Your task to perform on an android device: Open wifi settings Image 0: 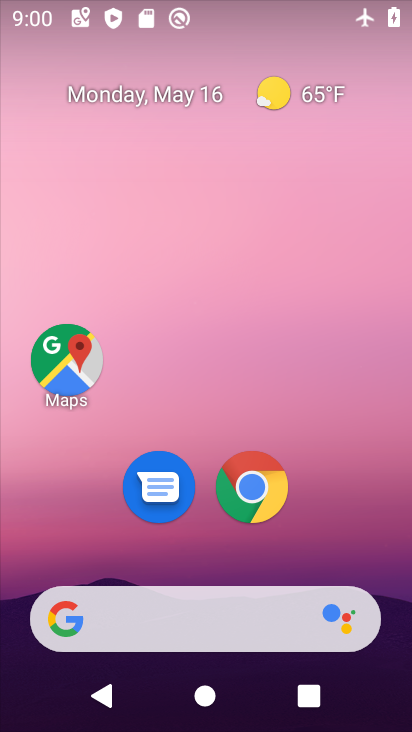
Step 0: drag from (381, 531) to (387, 164)
Your task to perform on an android device: Open wifi settings Image 1: 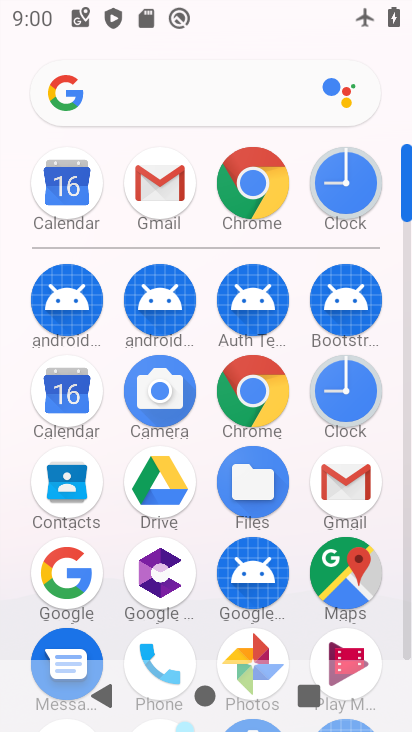
Step 1: drag from (106, 545) to (128, 321)
Your task to perform on an android device: Open wifi settings Image 2: 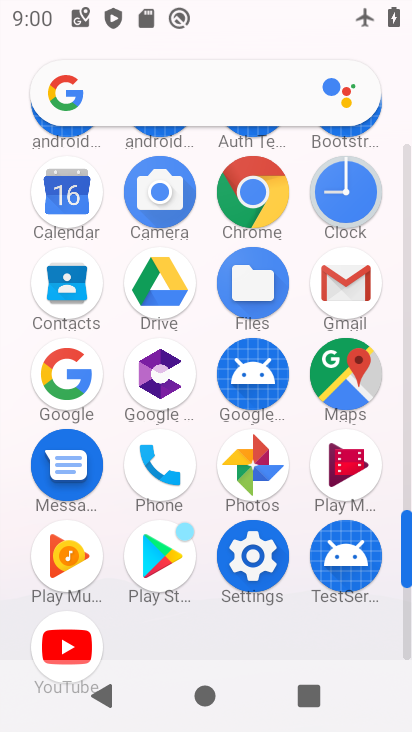
Step 2: click (247, 554)
Your task to perform on an android device: Open wifi settings Image 3: 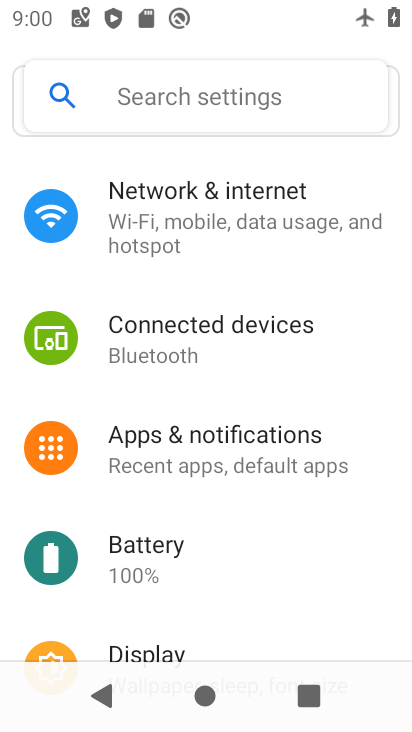
Step 3: drag from (355, 609) to (332, 319)
Your task to perform on an android device: Open wifi settings Image 4: 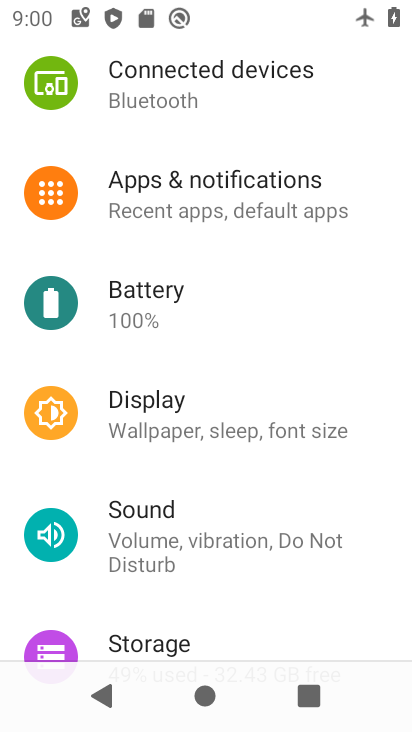
Step 4: drag from (338, 602) to (346, 373)
Your task to perform on an android device: Open wifi settings Image 5: 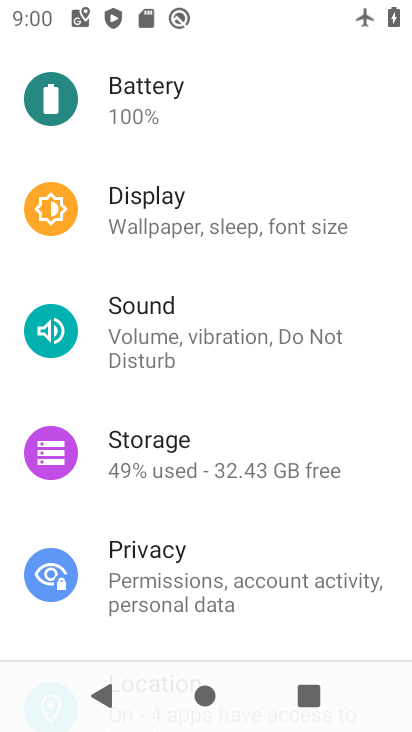
Step 5: drag from (329, 559) to (333, 326)
Your task to perform on an android device: Open wifi settings Image 6: 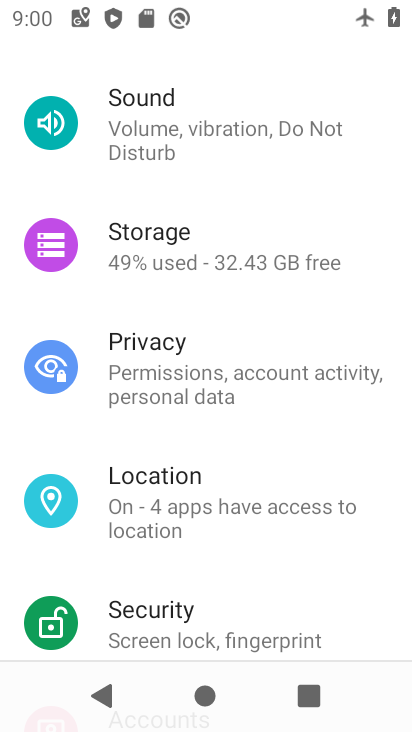
Step 6: drag from (327, 600) to (341, 398)
Your task to perform on an android device: Open wifi settings Image 7: 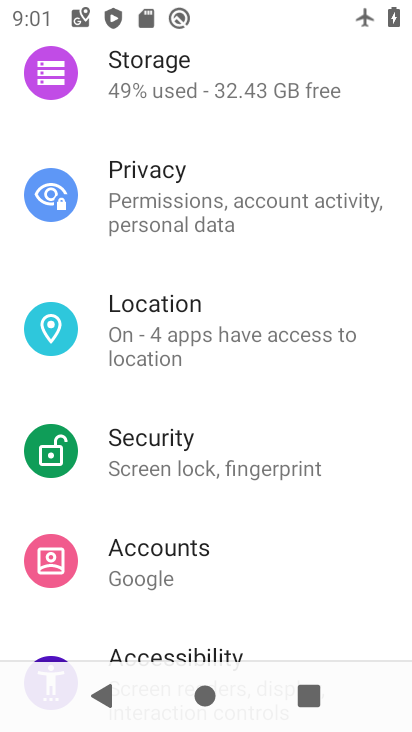
Step 7: drag from (327, 608) to (340, 404)
Your task to perform on an android device: Open wifi settings Image 8: 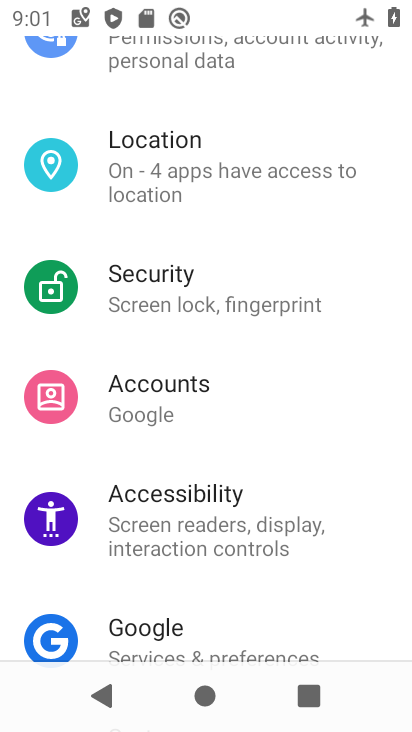
Step 8: drag from (343, 612) to (361, 399)
Your task to perform on an android device: Open wifi settings Image 9: 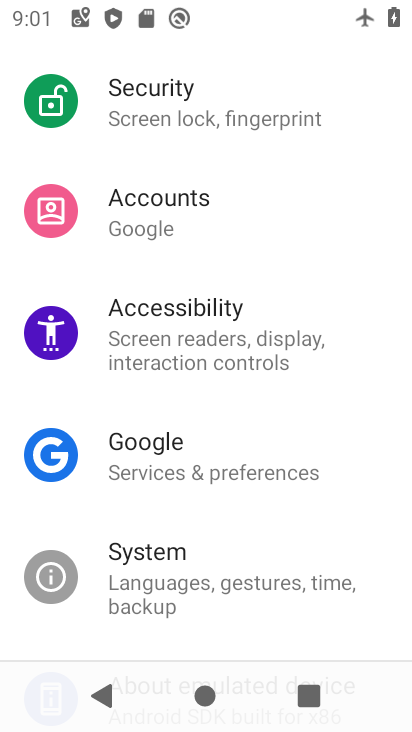
Step 9: drag from (361, 627) to (358, 452)
Your task to perform on an android device: Open wifi settings Image 10: 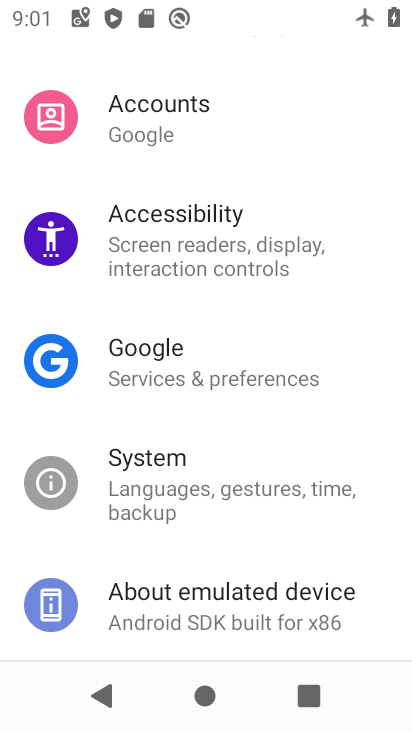
Step 10: drag from (355, 615) to (368, 365)
Your task to perform on an android device: Open wifi settings Image 11: 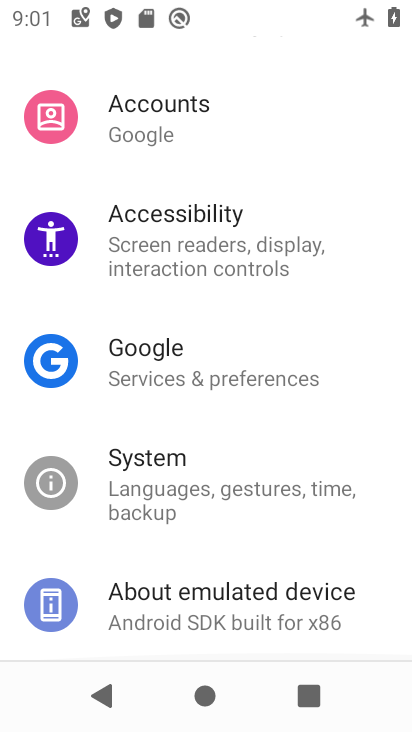
Step 11: drag from (375, 184) to (340, 472)
Your task to perform on an android device: Open wifi settings Image 12: 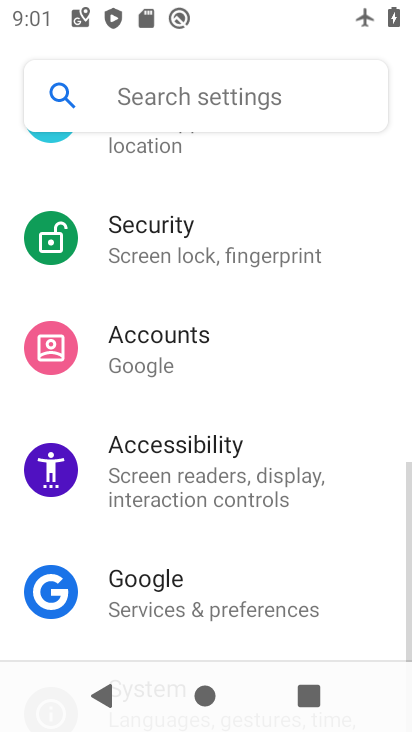
Step 12: drag from (338, 270) to (350, 511)
Your task to perform on an android device: Open wifi settings Image 13: 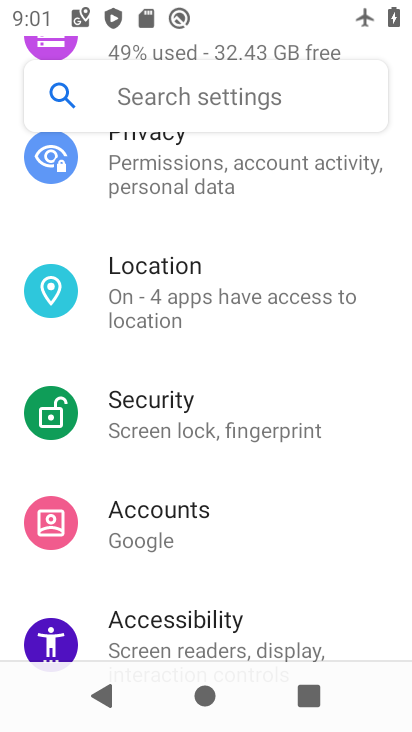
Step 13: drag from (325, 349) to (313, 587)
Your task to perform on an android device: Open wifi settings Image 14: 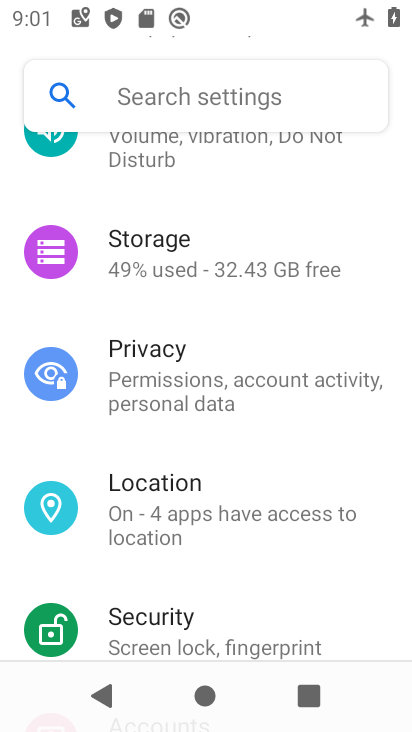
Step 14: drag from (335, 227) to (324, 388)
Your task to perform on an android device: Open wifi settings Image 15: 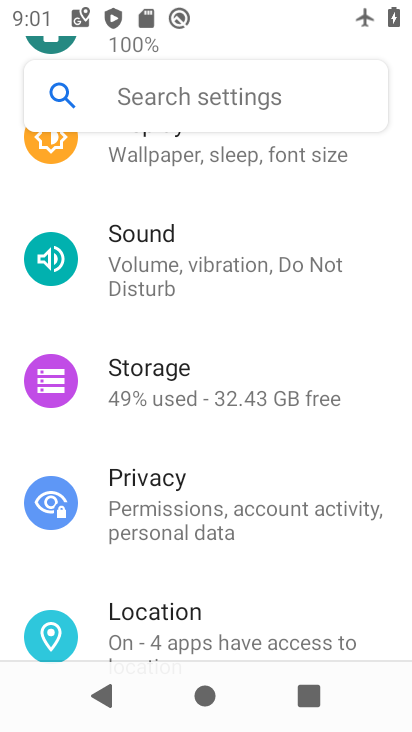
Step 15: drag from (365, 224) to (346, 384)
Your task to perform on an android device: Open wifi settings Image 16: 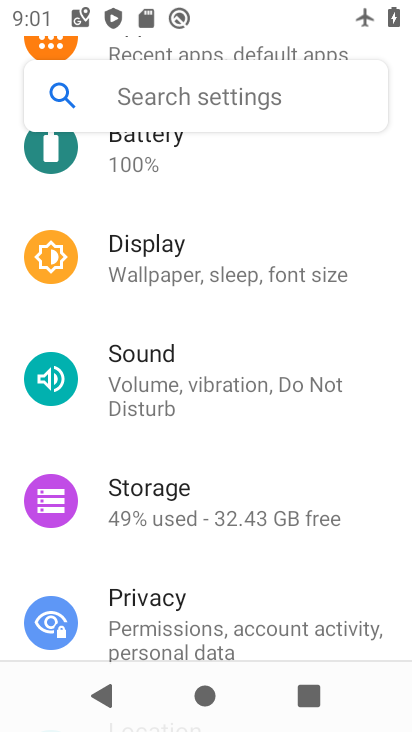
Step 16: drag from (376, 221) to (359, 387)
Your task to perform on an android device: Open wifi settings Image 17: 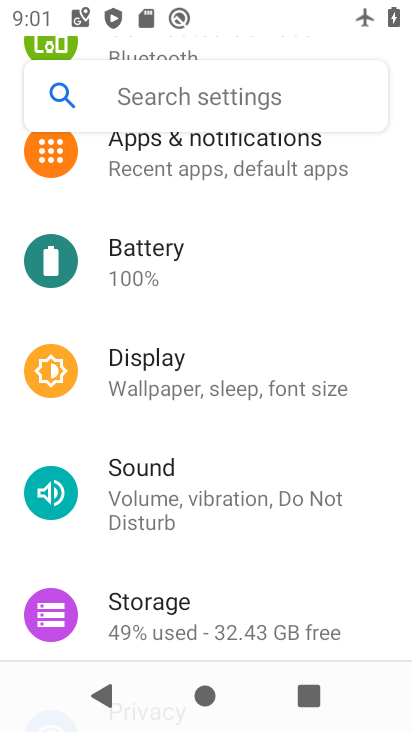
Step 17: drag from (357, 246) to (360, 386)
Your task to perform on an android device: Open wifi settings Image 18: 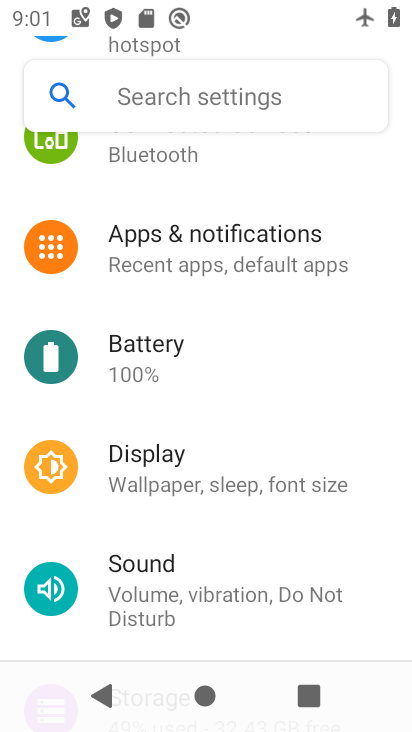
Step 18: drag from (364, 333) to (346, 489)
Your task to perform on an android device: Open wifi settings Image 19: 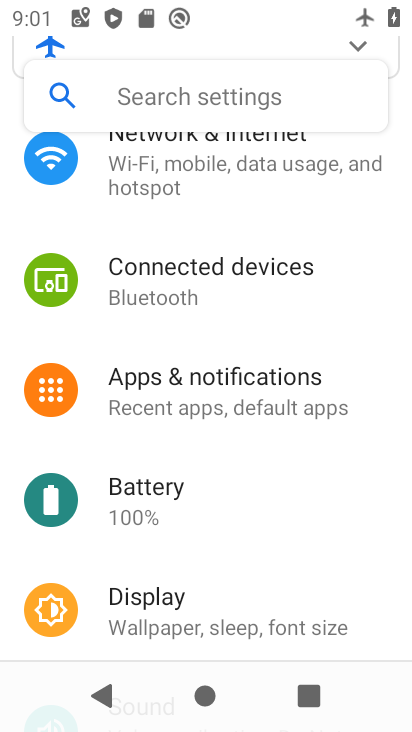
Step 19: drag from (365, 218) to (348, 439)
Your task to perform on an android device: Open wifi settings Image 20: 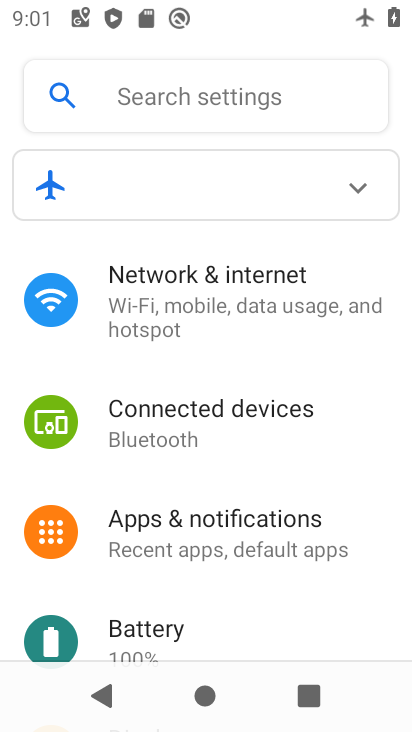
Step 20: click (237, 297)
Your task to perform on an android device: Open wifi settings Image 21: 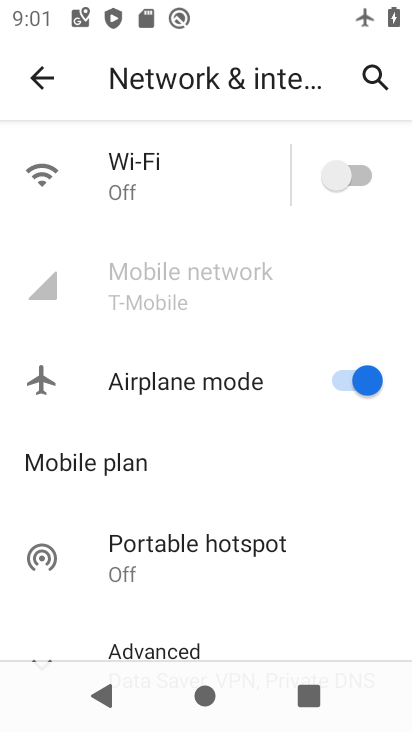
Step 21: task complete